Your task to perform on an android device: see sites visited before in the chrome app Image 0: 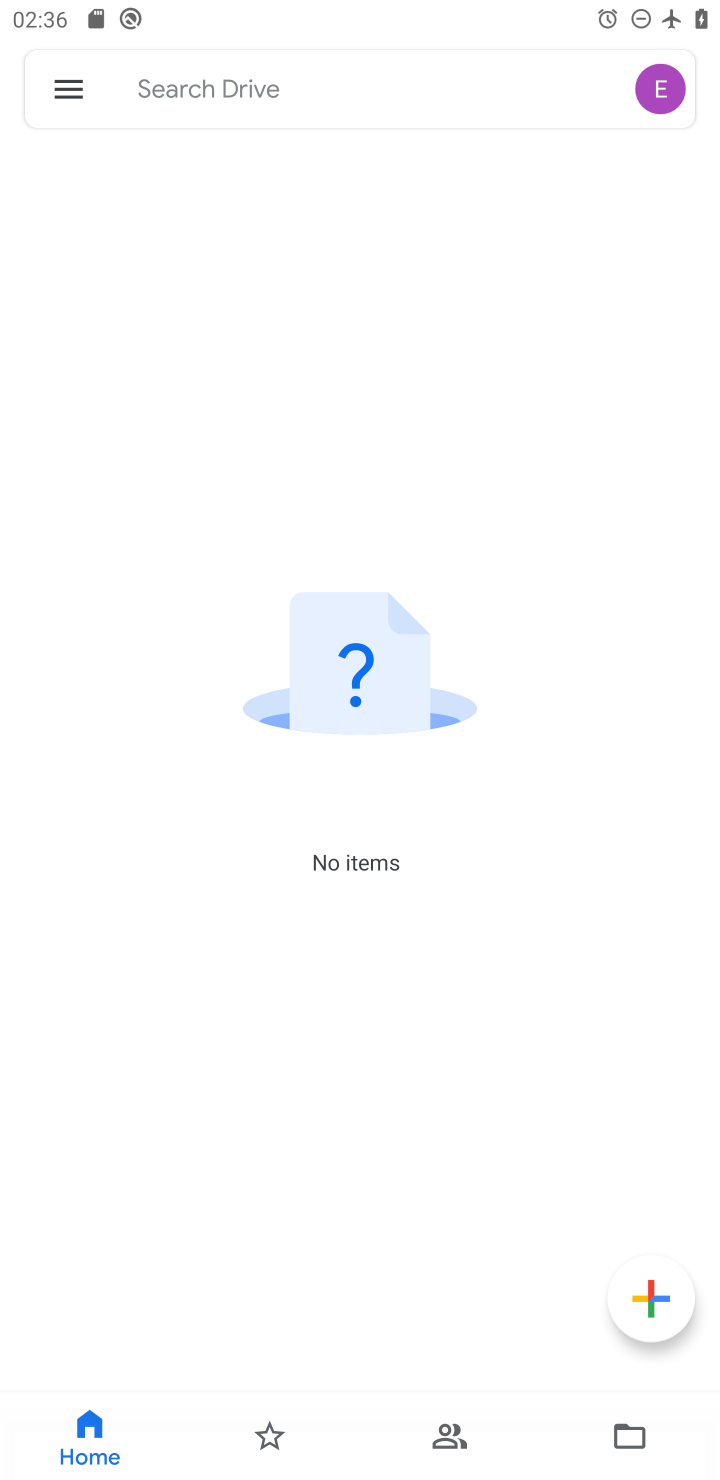
Step 0: press home button
Your task to perform on an android device: see sites visited before in the chrome app Image 1: 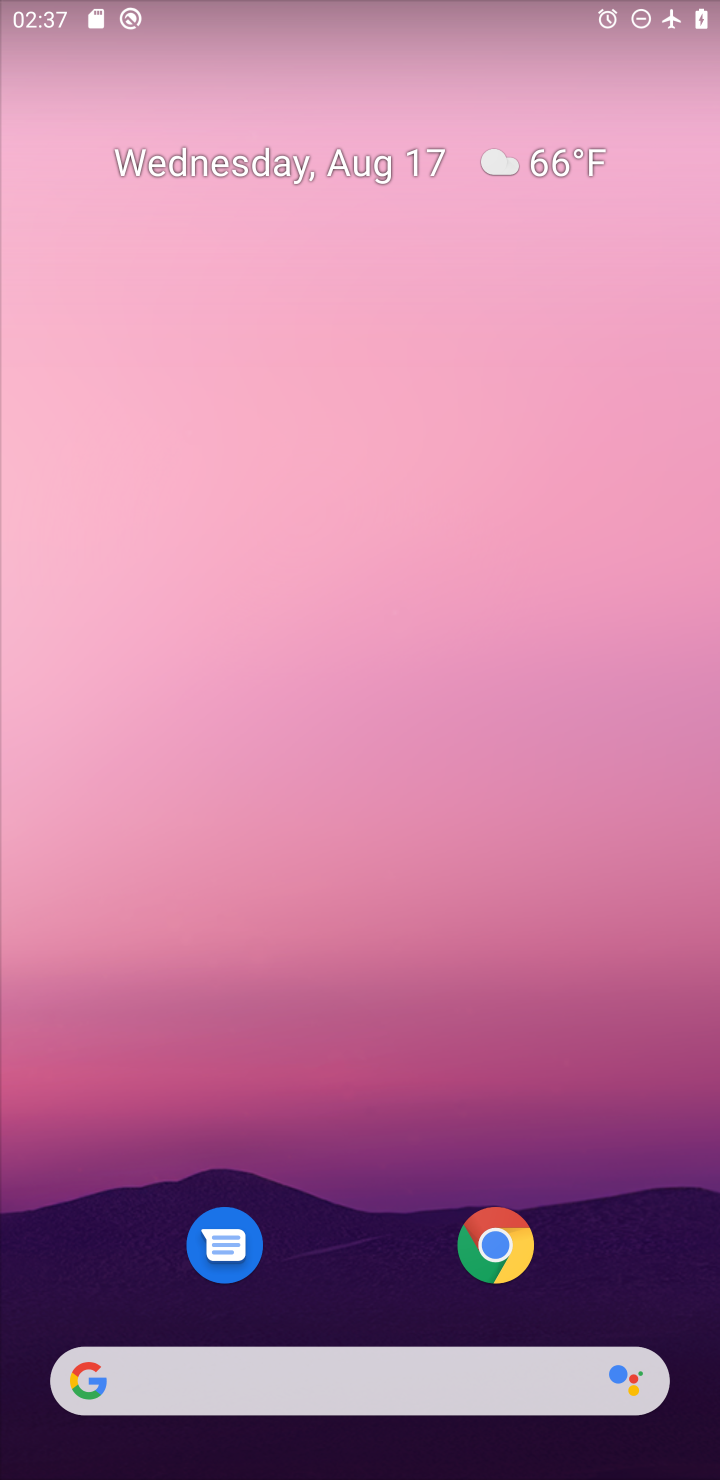
Step 1: click (497, 1248)
Your task to perform on an android device: see sites visited before in the chrome app Image 2: 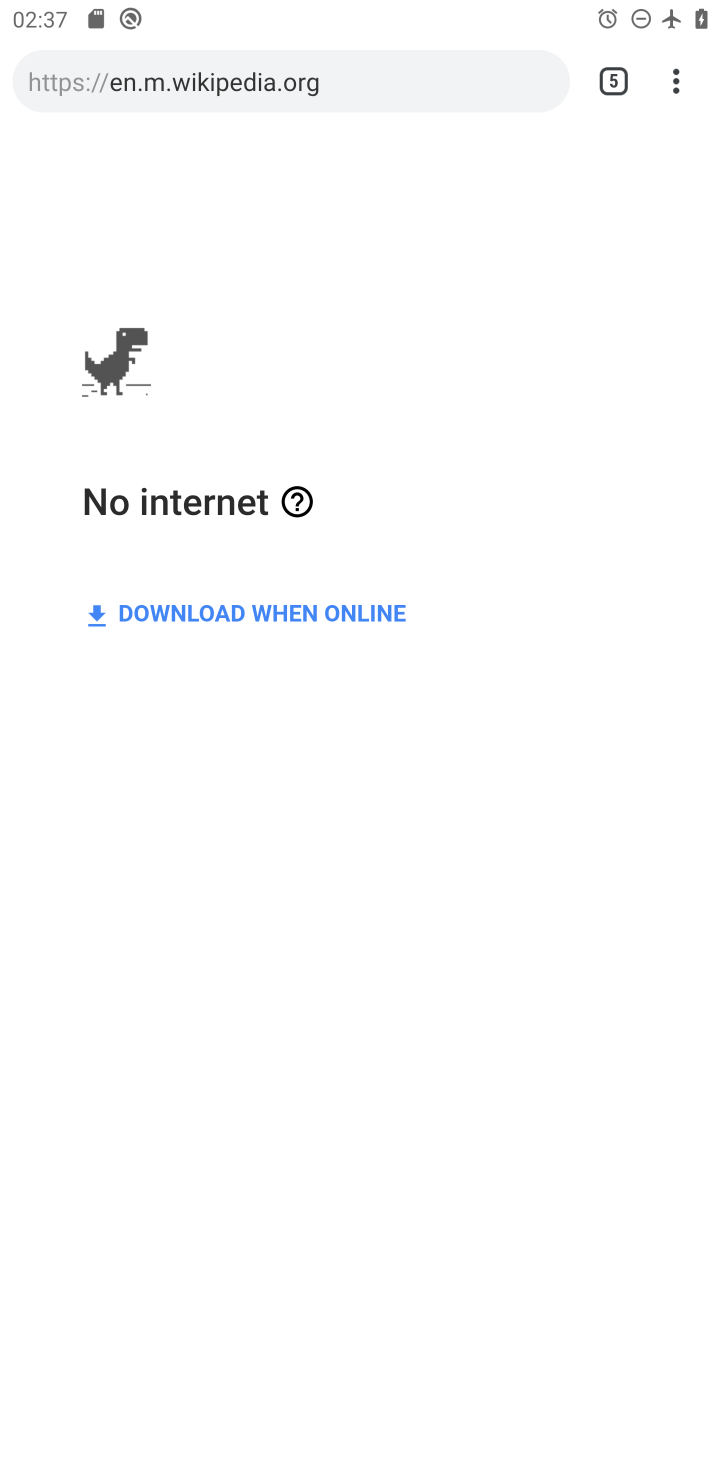
Step 2: click (678, 85)
Your task to perform on an android device: see sites visited before in the chrome app Image 3: 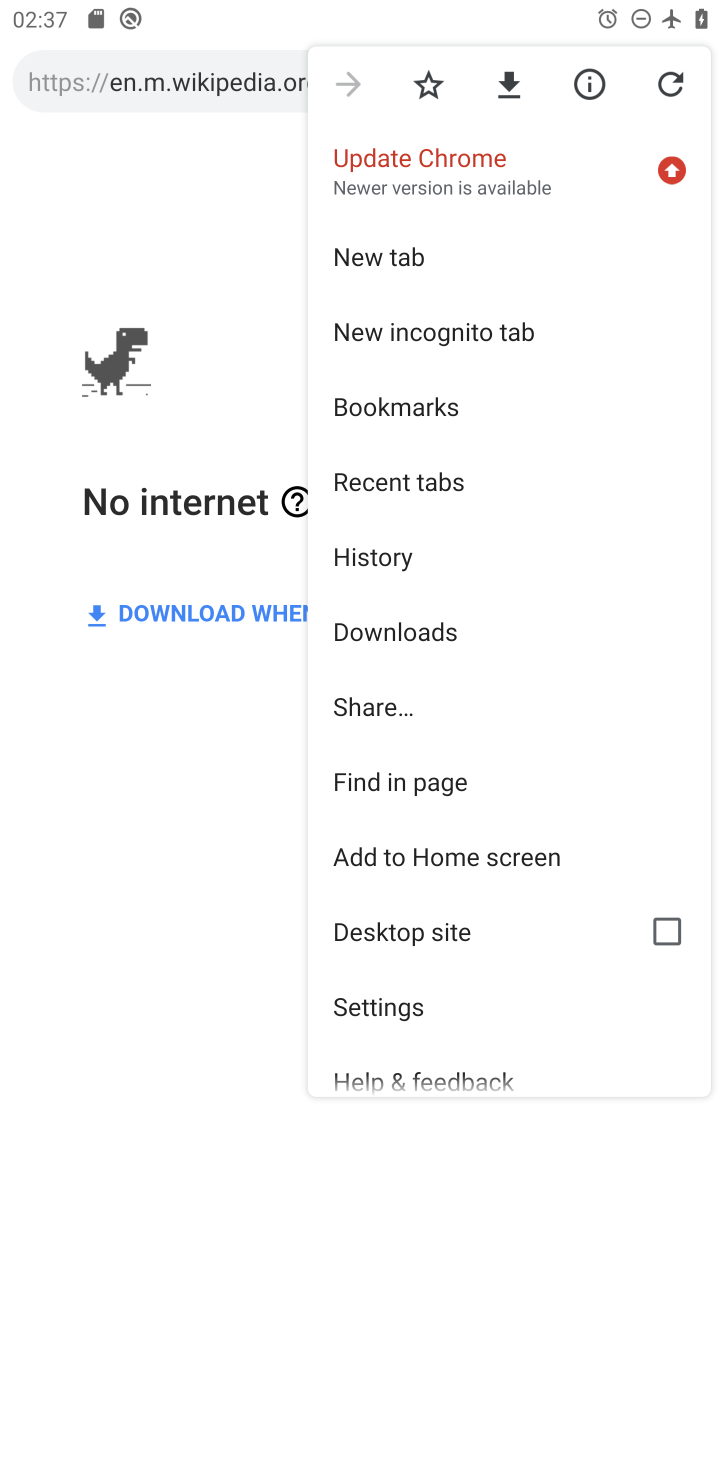
Step 3: click (382, 475)
Your task to perform on an android device: see sites visited before in the chrome app Image 4: 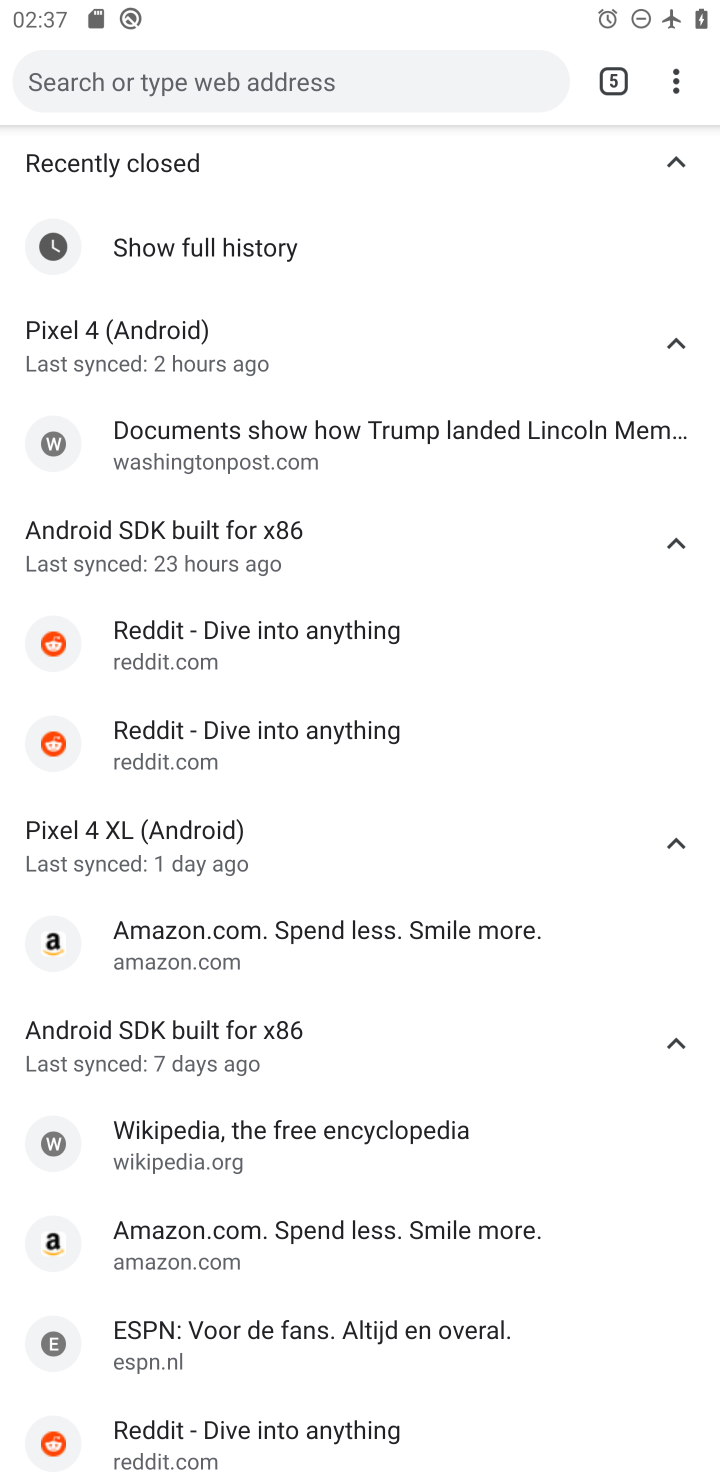
Step 4: task complete